Your task to perform on an android device: Go to notification settings Image 0: 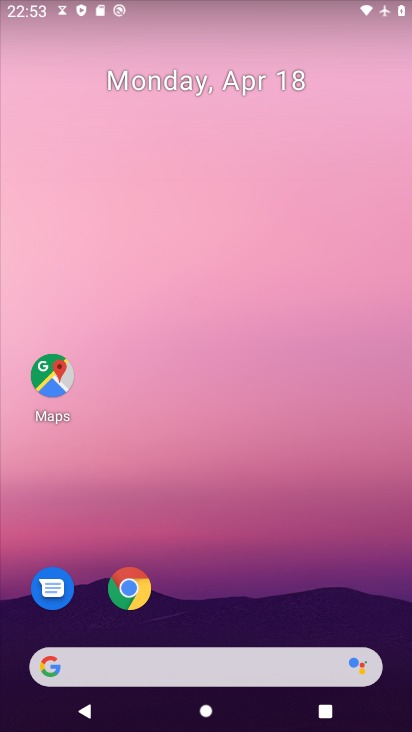
Step 0: drag from (360, 590) to (263, 4)
Your task to perform on an android device: Go to notification settings Image 1: 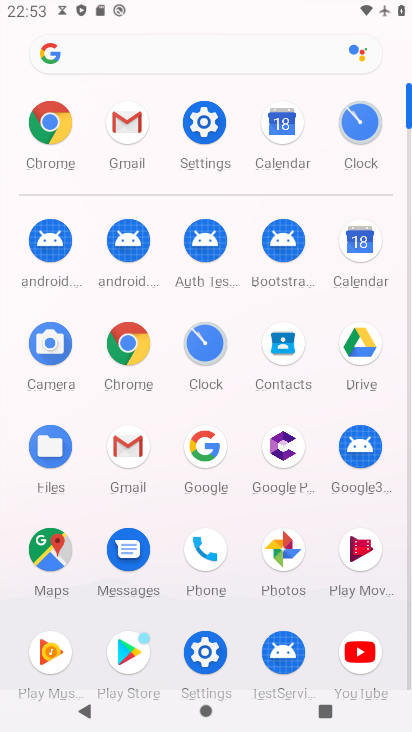
Step 1: drag from (21, 544) to (3, 246)
Your task to perform on an android device: Go to notification settings Image 2: 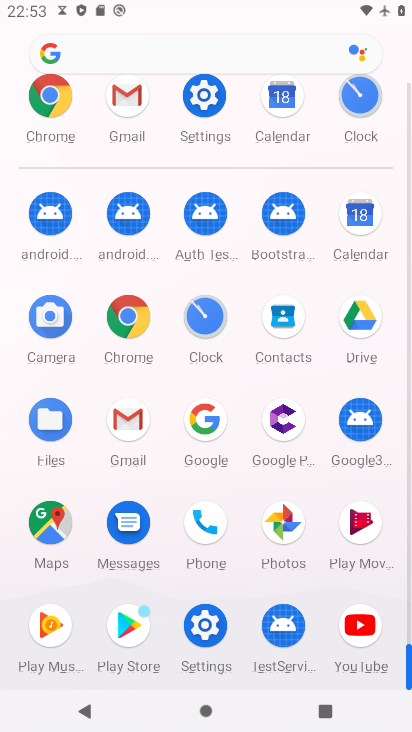
Step 2: click (202, 627)
Your task to perform on an android device: Go to notification settings Image 3: 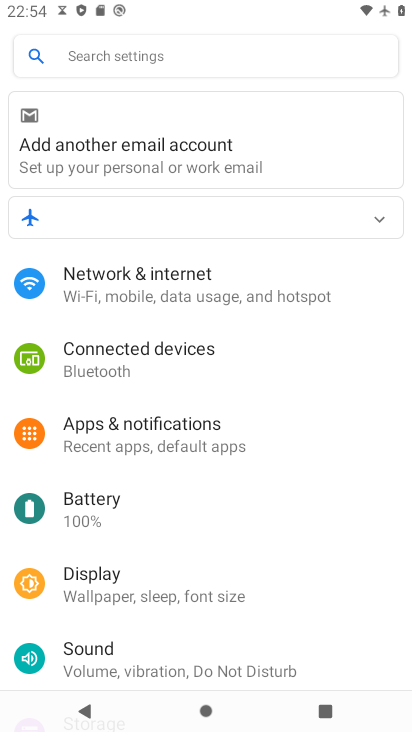
Step 3: drag from (0, 505) to (3, 327)
Your task to perform on an android device: Go to notification settings Image 4: 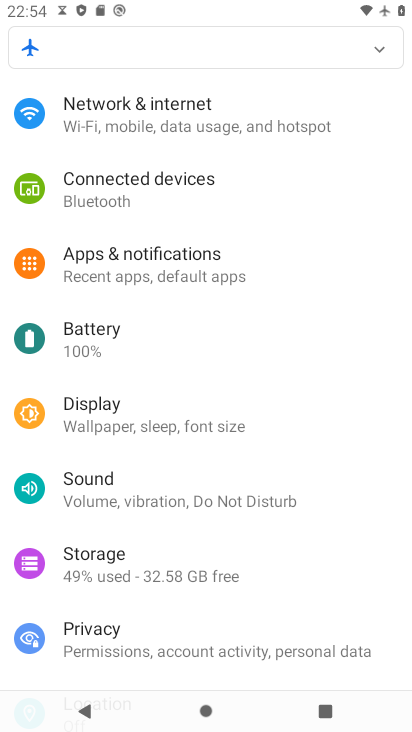
Step 4: drag from (16, 480) to (7, 328)
Your task to perform on an android device: Go to notification settings Image 5: 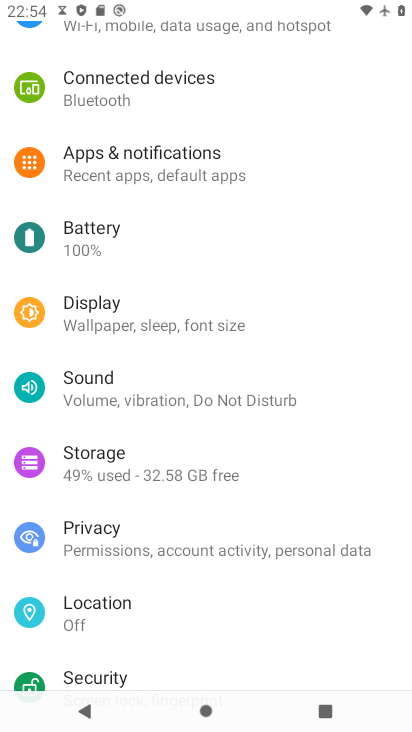
Step 5: drag from (302, 182) to (319, 397)
Your task to perform on an android device: Go to notification settings Image 6: 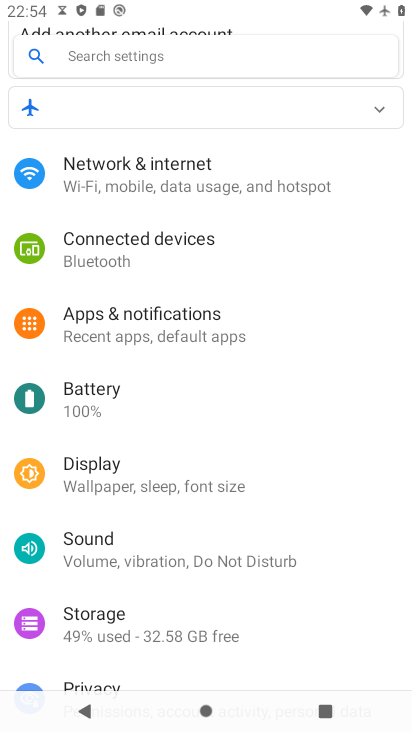
Step 6: click (223, 325)
Your task to perform on an android device: Go to notification settings Image 7: 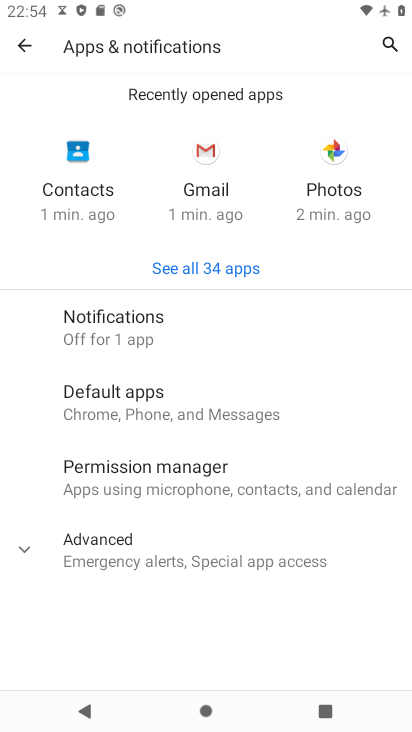
Step 7: click (170, 322)
Your task to perform on an android device: Go to notification settings Image 8: 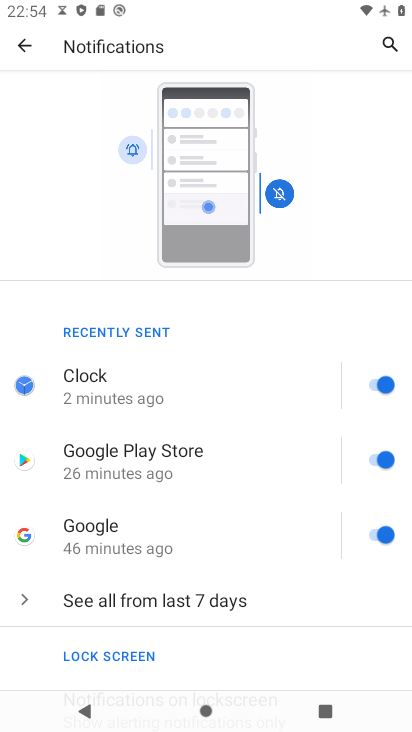
Step 8: drag from (195, 587) to (289, 37)
Your task to perform on an android device: Go to notification settings Image 9: 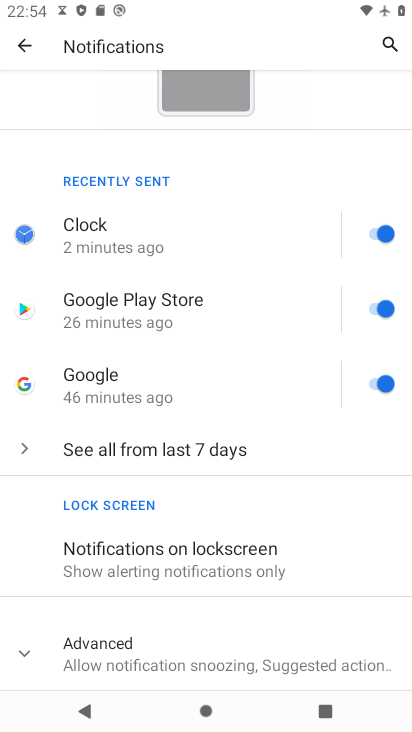
Step 9: click (28, 658)
Your task to perform on an android device: Go to notification settings Image 10: 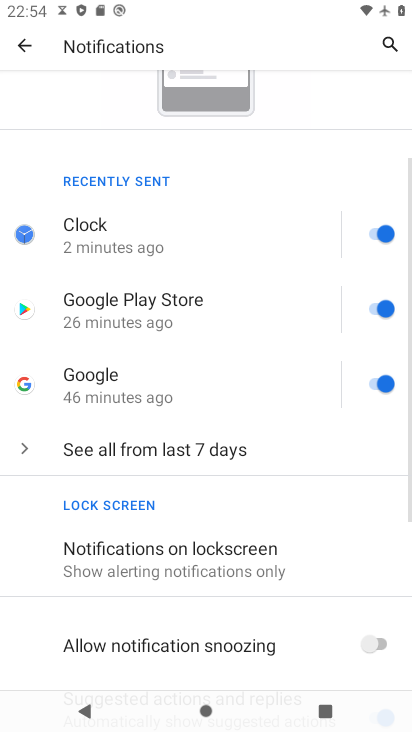
Step 10: drag from (224, 572) to (229, 199)
Your task to perform on an android device: Go to notification settings Image 11: 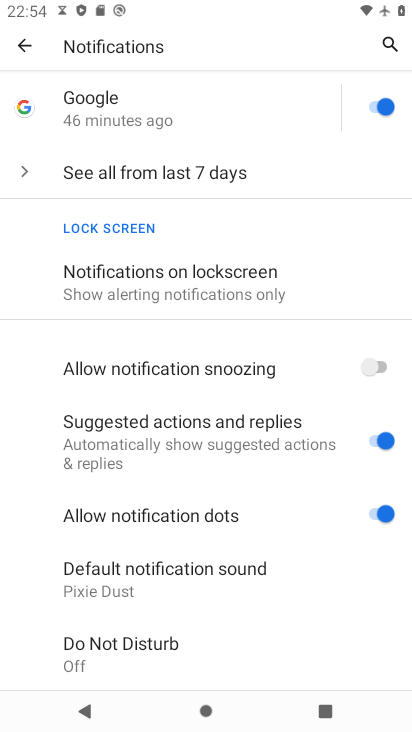
Step 11: click (371, 443)
Your task to perform on an android device: Go to notification settings Image 12: 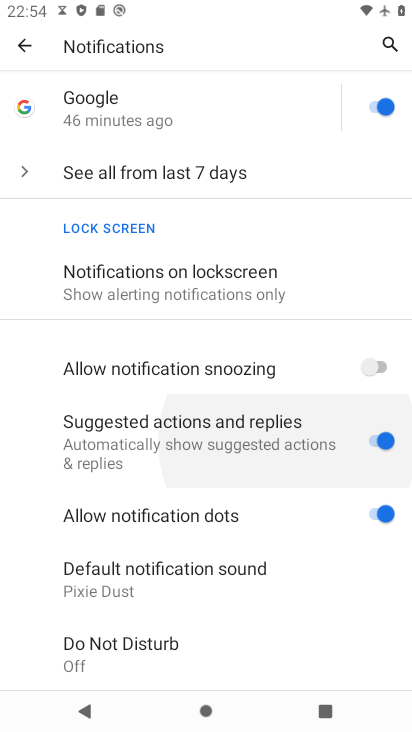
Step 12: click (382, 504)
Your task to perform on an android device: Go to notification settings Image 13: 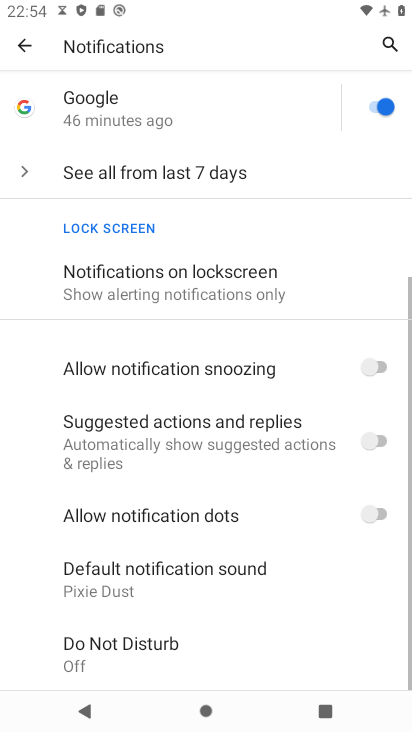
Step 13: task complete